Your task to perform on an android device: Open Google Chrome and click the shortcut for Amazon.com Image 0: 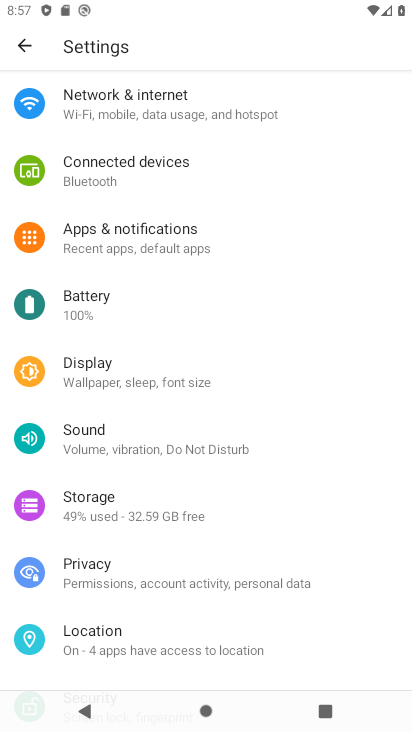
Step 0: press home button
Your task to perform on an android device: Open Google Chrome and click the shortcut for Amazon.com Image 1: 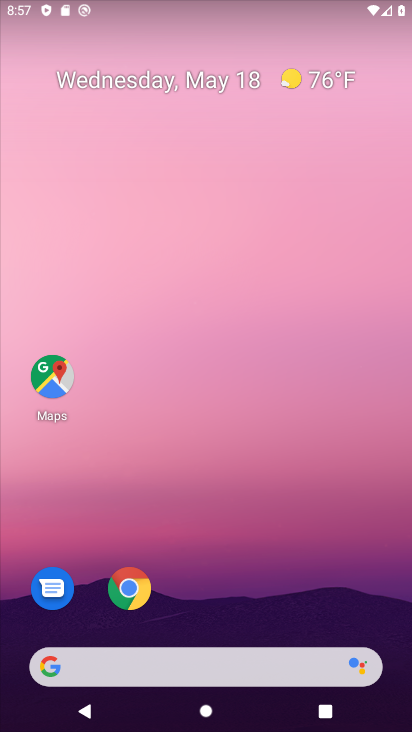
Step 1: click (145, 588)
Your task to perform on an android device: Open Google Chrome and click the shortcut for Amazon.com Image 2: 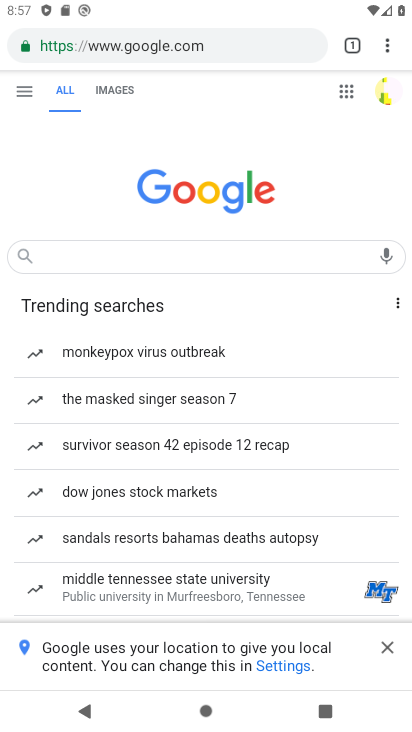
Step 2: click (389, 56)
Your task to perform on an android device: Open Google Chrome and click the shortcut for Amazon.com Image 3: 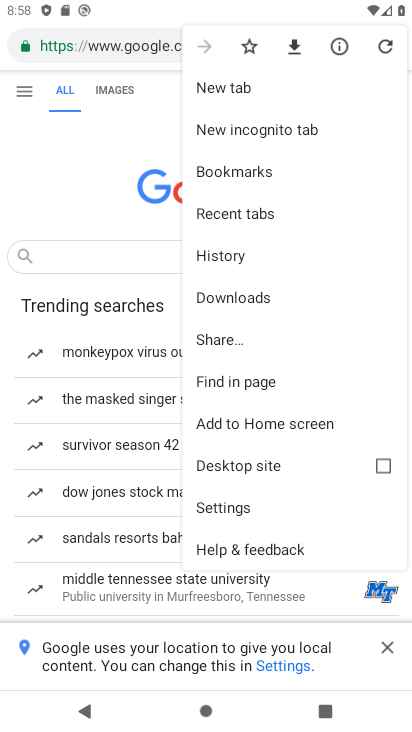
Step 3: click (61, 179)
Your task to perform on an android device: Open Google Chrome and click the shortcut for Amazon.com Image 4: 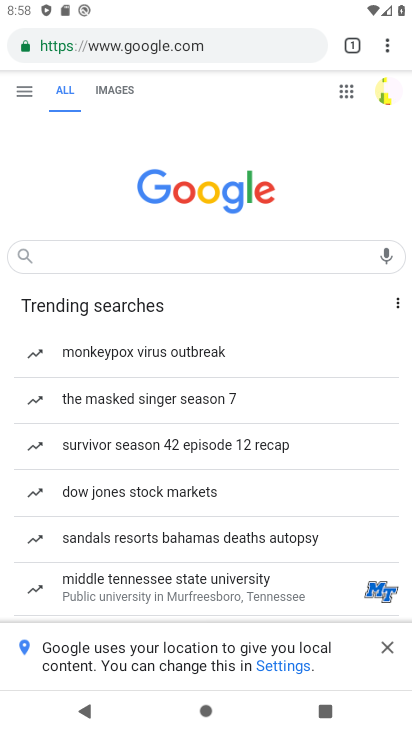
Step 4: drag from (298, 187) to (395, 639)
Your task to perform on an android device: Open Google Chrome and click the shortcut for Amazon.com Image 5: 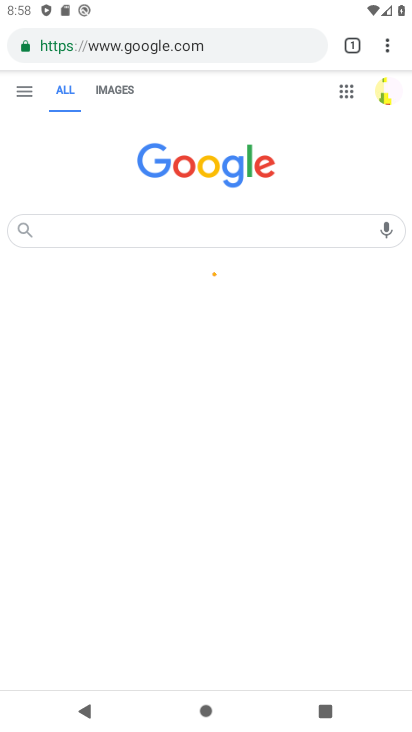
Step 5: click (227, 225)
Your task to perform on an android device: Open Google Chrome and click the shortcut for Amazon.com Image 6: 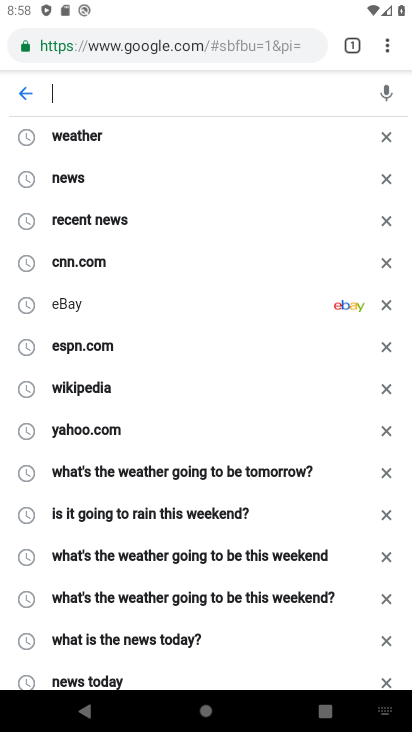
Step 6: type "amazon"
Your task to perform on an android device: Open Google Chrome and click the shortcut for Amazon.com Image 7: 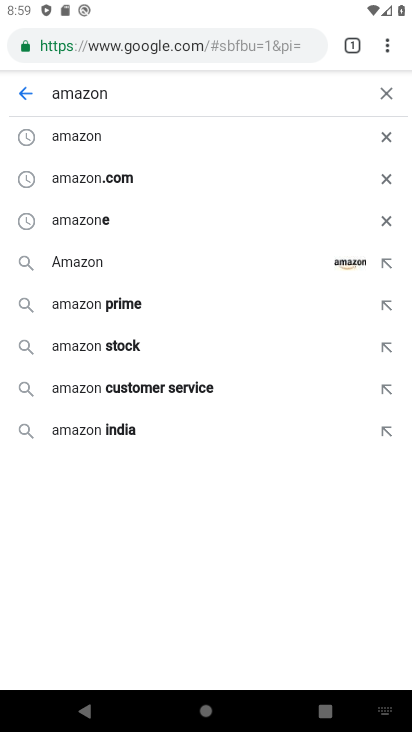
Step 7: click (139, 165)
Your task to perform on an android device: Open Google Chrome and click the shortcut for Amazon.com Image 8: 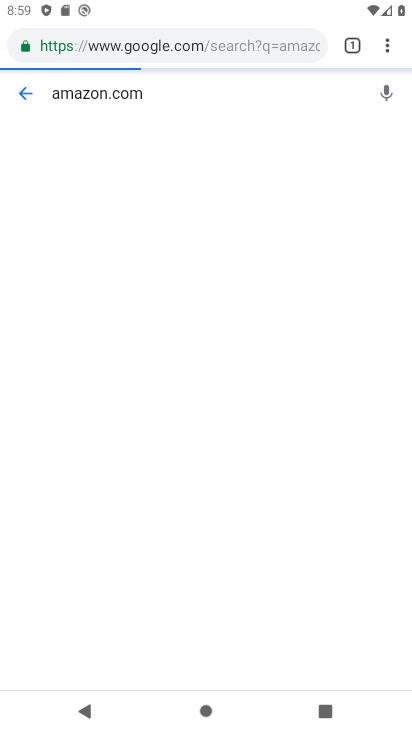
Step 8: task complete